Your task to perform on an android device: Go to Maps Image 0: 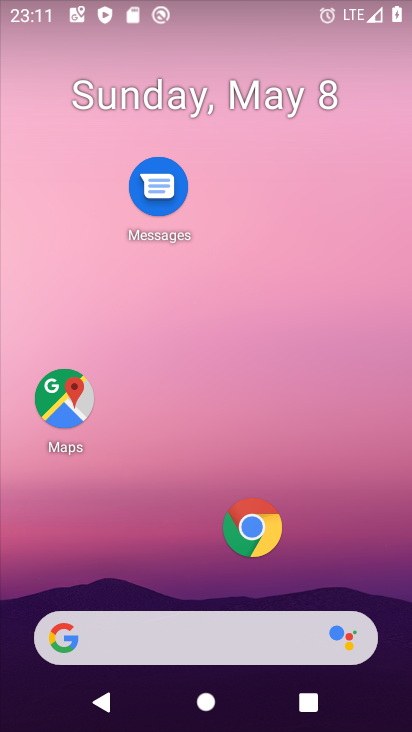
Step 0: click (60, 397)
Your task to perform on an android device: Go to Maps Image 1: 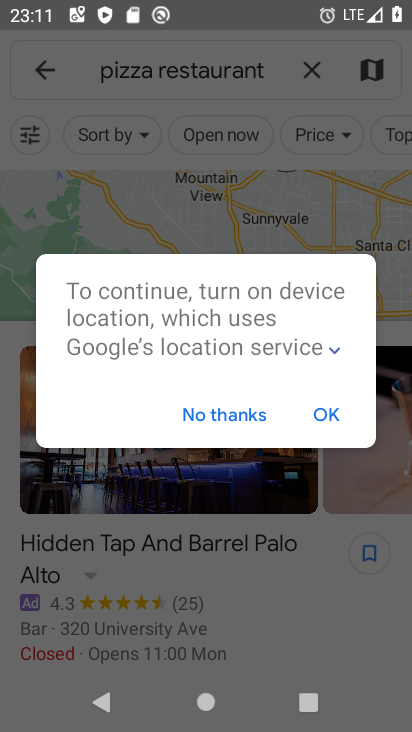
Step 1: click (264, 415)
Your task to perform on an android device: Go to Maps Image 2: 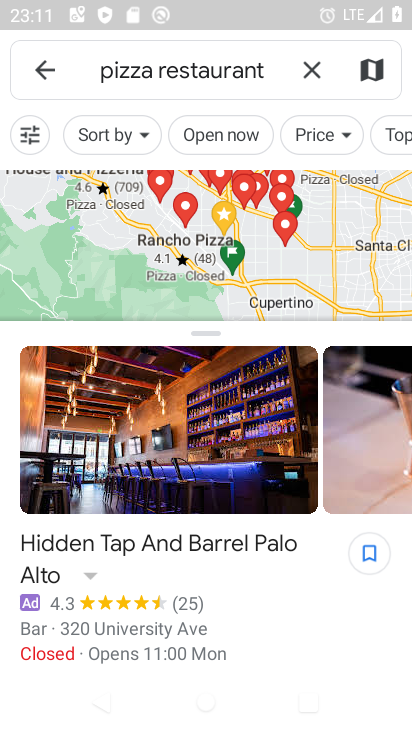
Step 2: task complete